Your task to perform on an android device: stop showing notifications on the lock screen Image 0: 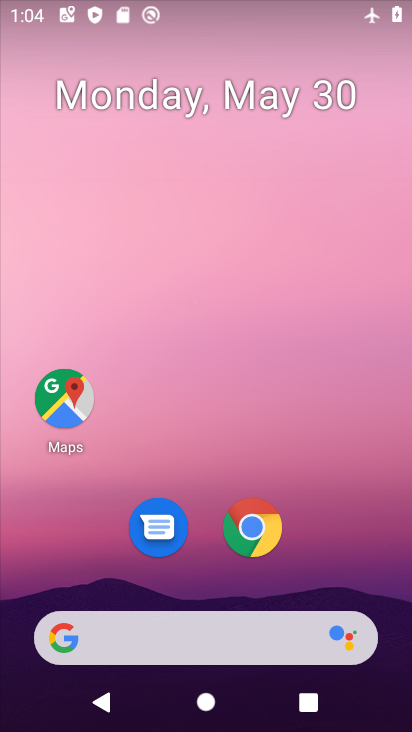
Step 0: drag from (194, 461) to (283, 54)
Your task to perform on an android device: stop showing notifications on the lock screen Image 1: 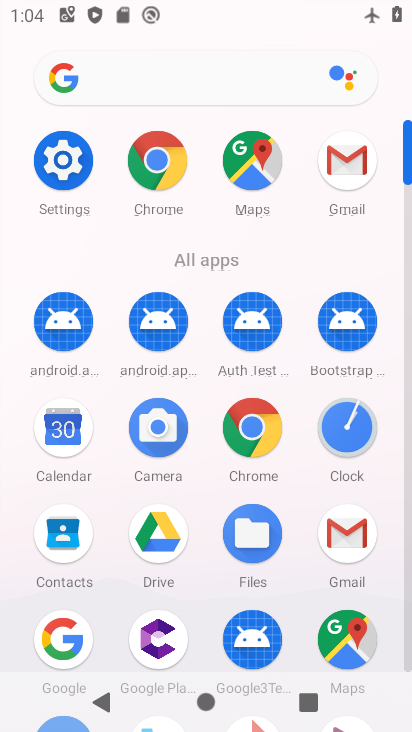
Step 1: click (77, 183)
Your task to perform on an android device: stop showing notifications on the lock screen Image 2: 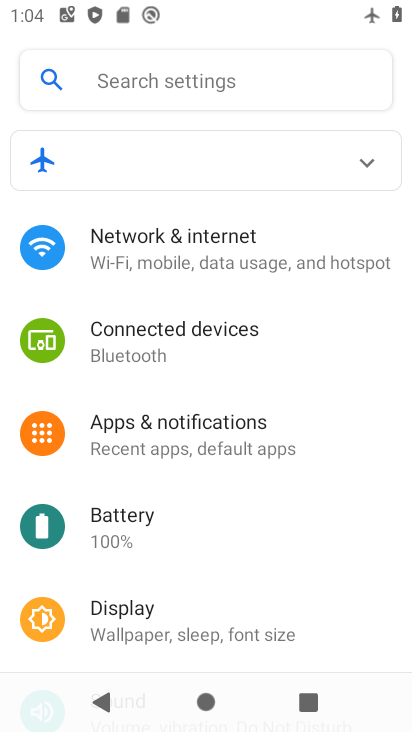
Step 2: click (206, 446)
Your task to perform on an android device: stop showing notifications on the lock screen Image 3: 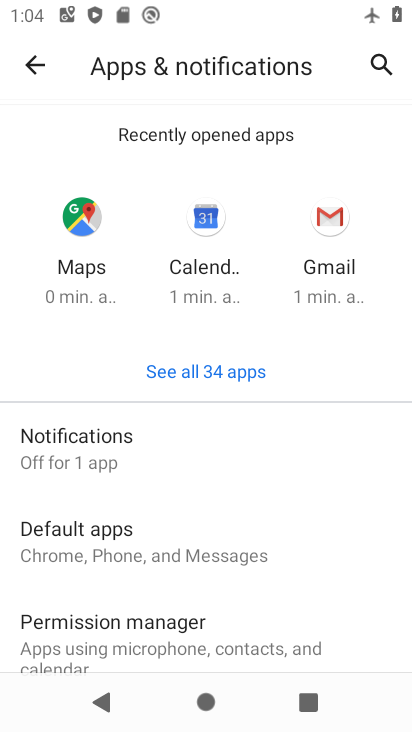
Step 3: click (116, 461)
Your task to perform on an android device: stop showing notifications on the lock screen Image 4: 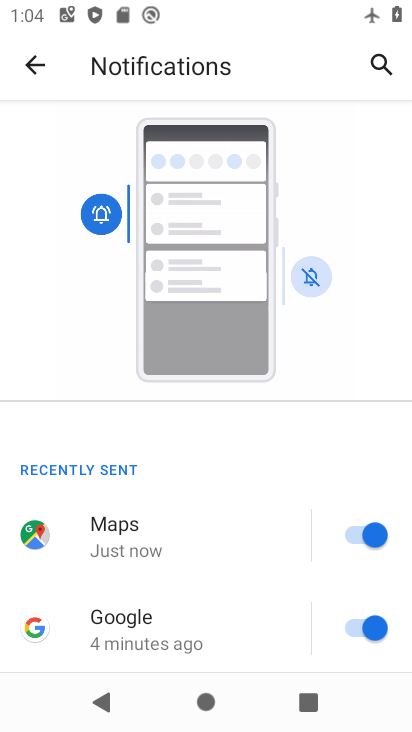
Step 4: drag from (159, 588) to (158, 232)
Your task to perform on an android device: stop showing notifications on the lock screen Image 5: 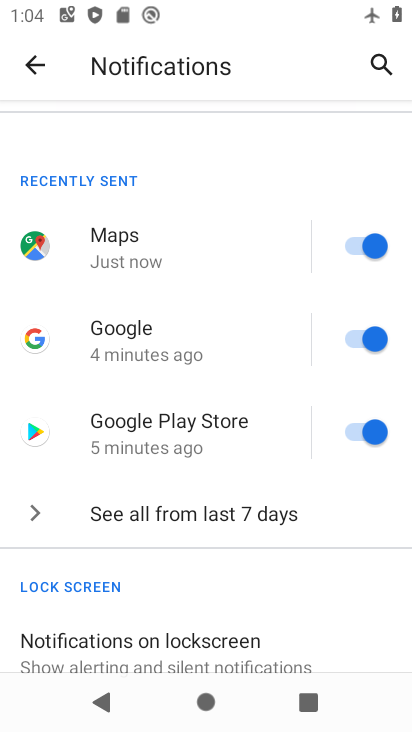
Step 5: drag from (163, 624) to (227, 354)
Your task to perform on an android device: stop showing notifications on the lock screen Image 6: 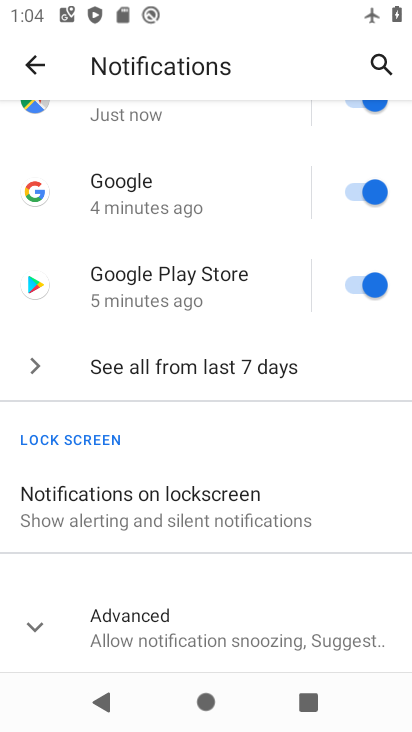
Step 6: click (188, 504)
Your task to perform on an android device: stop showing notifications on the lock screen Image 7: 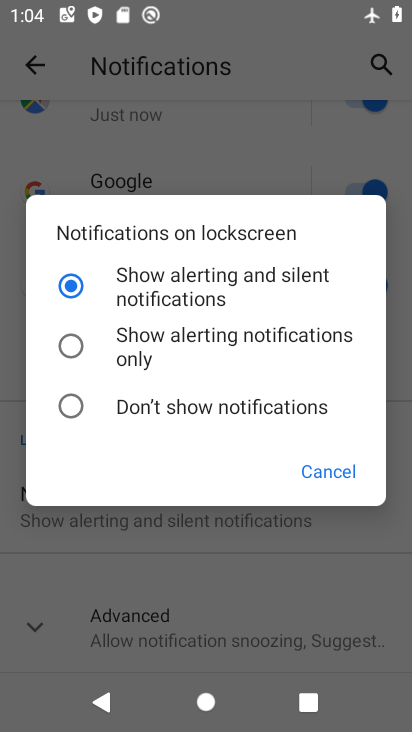
Step 7: click (102, 409)
Your task to perform on an android device: stop showing notifications on the lock screen Image 8: 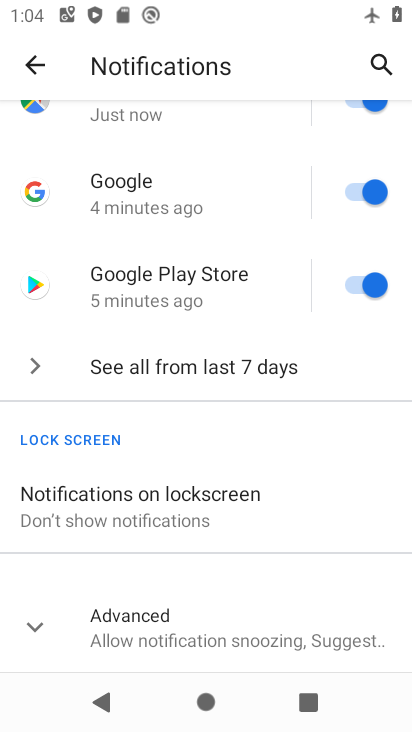
Step 8: task complete